Your task to perform on an android device: Open privacy settings Image 0: 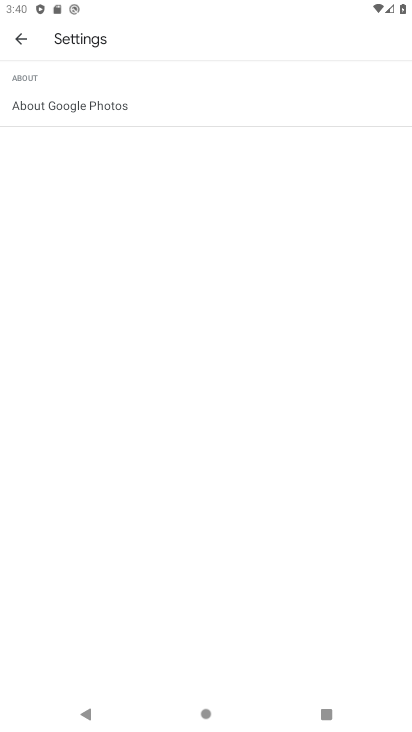
Step 0: press back button
Your task to perform on an android device: Open privacy settings Image 1: 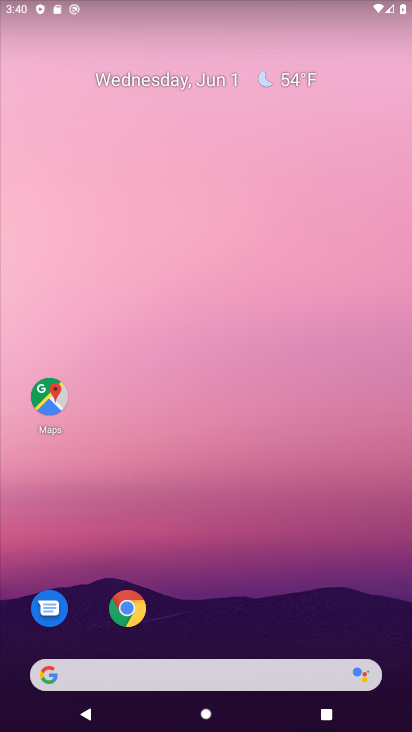
Step 1: drag from (151, 692) to (251, 83)
Your task to perform on an android device: Open privacy settings Image 2: 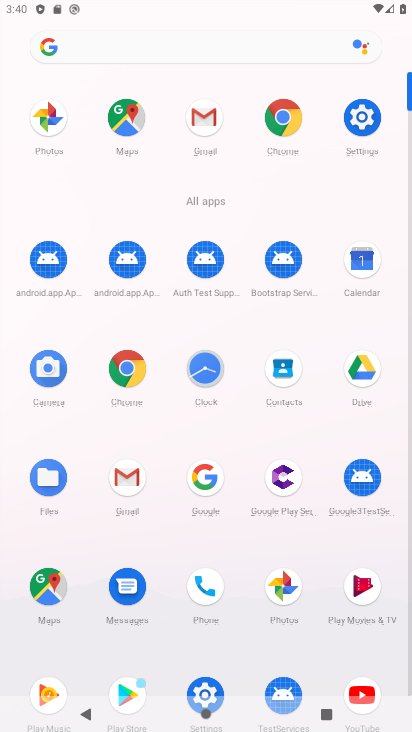
Step 2: click (365, 134)
Your task to perform on an android device: Open privacy settings Image 3: 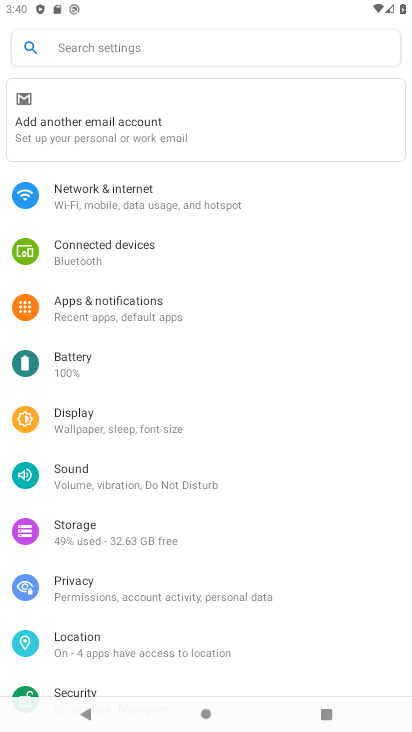
Step 3: click (127, 605)
Your task to perform on an android device: Open privacy settings Image 4: 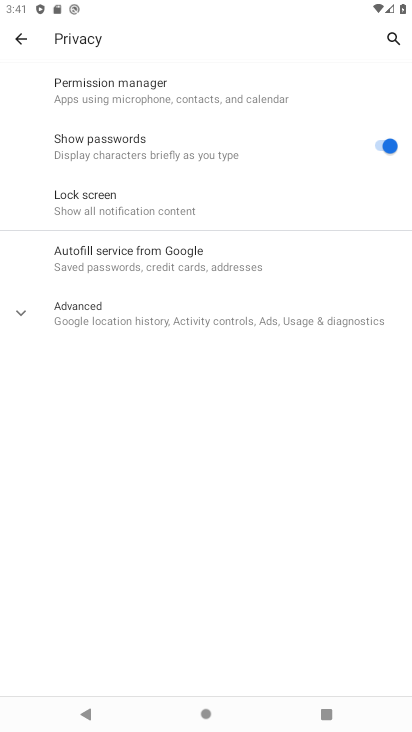
Step 4: task complete